Your task to perform on an android device: turn on location history Image 0: 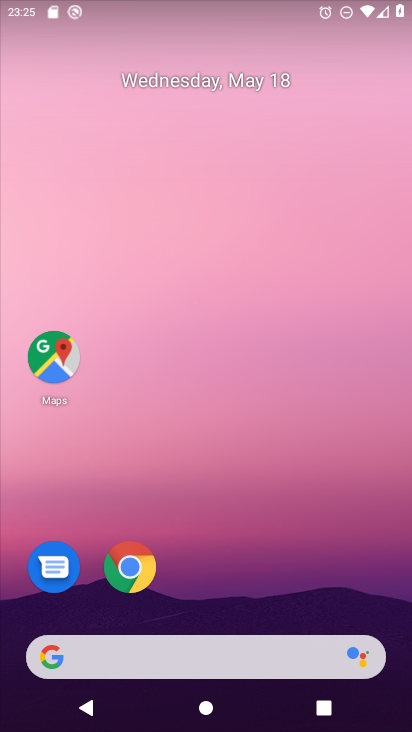
Step 0: press home button
Your task to perform on an android device: turn on location history Image 1: 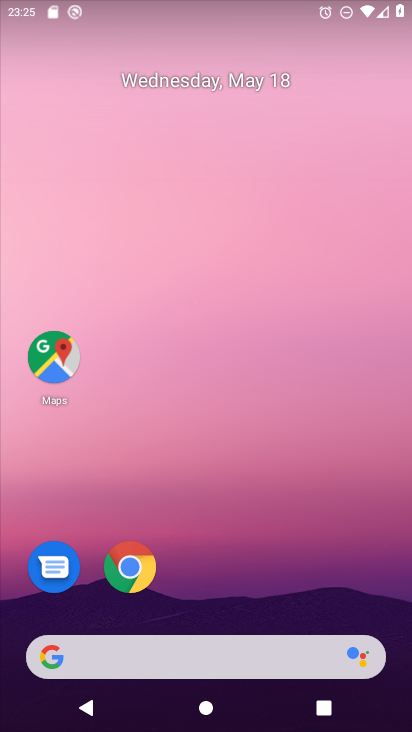
Step 1: drag from (252, 664) to (203, 91)
Your task to perform on an android device: turn on location history Image 2: 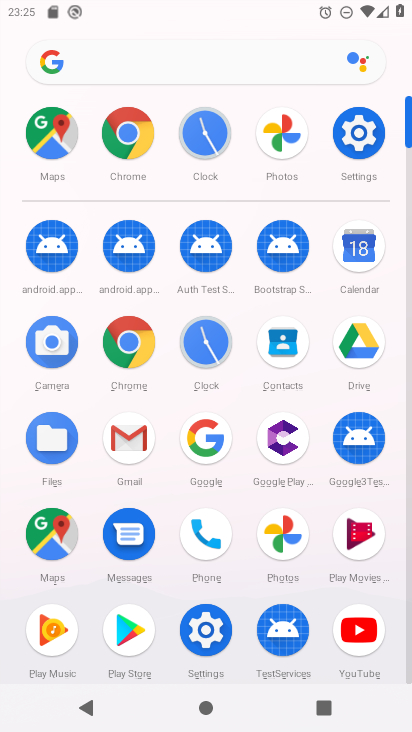
Step 2: click (345, 139)
Your task to perform on an android device: turn on location history Image 3: 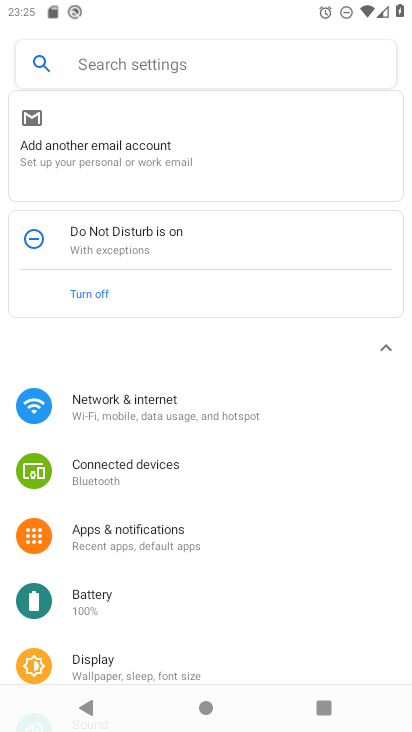
Step 3: click (126, 70)
Your task to perform on an android device: turn on location history Image 4: 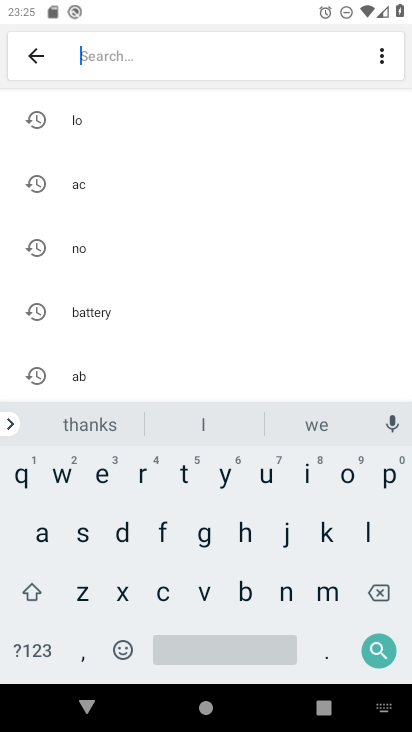
Step 4: click (368, 525)
Your task to perform on an android device: turn on location history Image 5: 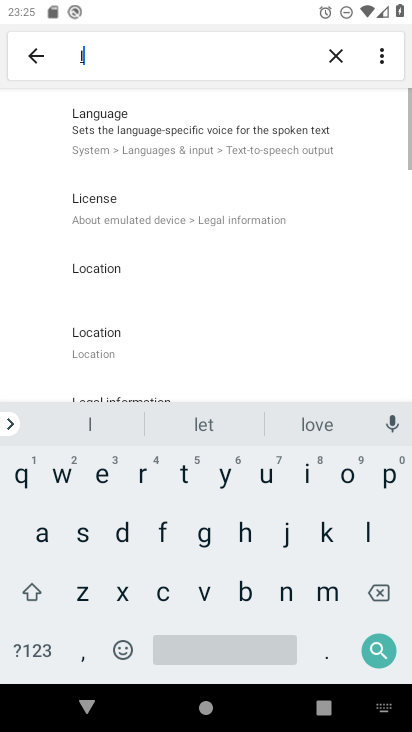
Step 5: click (344, 471)
Your task to perform on an android device: turn on location history Image 6: 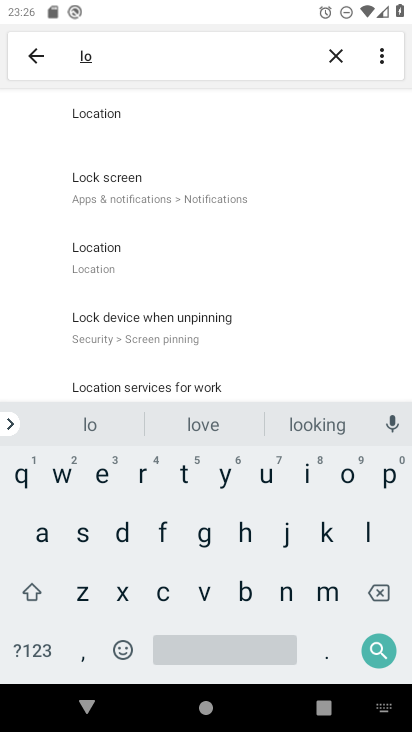
Step 6: click (87, 269)
Your task to perform on an android device: turn on location history Image 7: 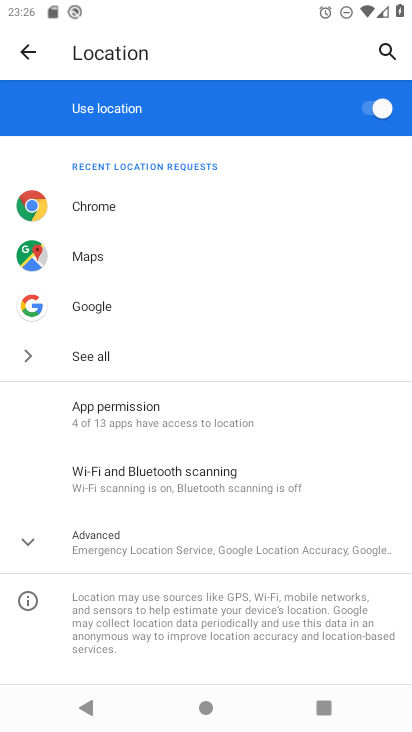
Step 7: click (51, 529)
Your task to perform on an android device: turn on location history Image 8: 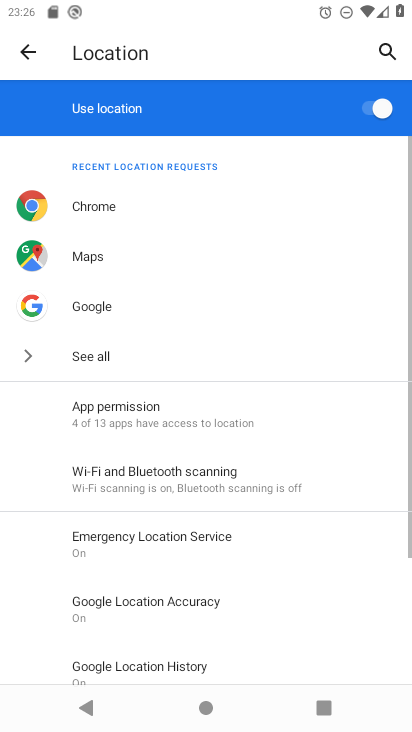
Step 8: drag from (135, 553) to (133, 457)
Your task to perform on an android device: turn on location history Image 9: 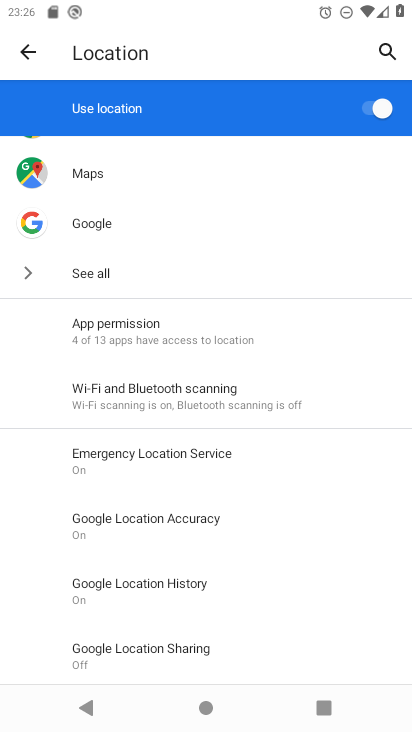
Step 9: click (124, 577)
Your task to perform on an android device: turn on location history Image 10: 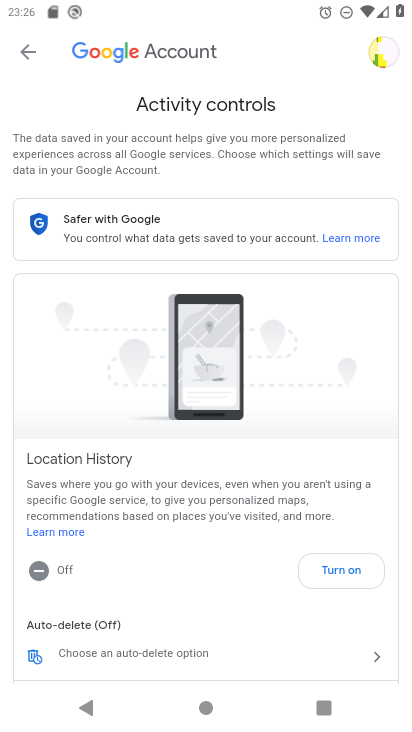
Step 10: task complete